Your task to perform on an android device: search for starred emails in the gmail app Image 0: 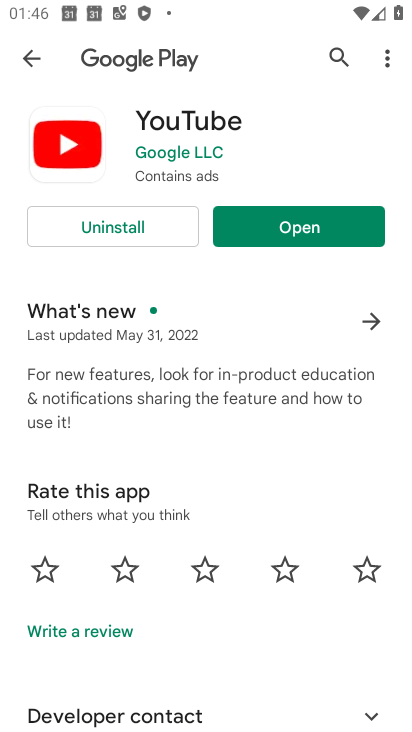
Step 0: press home button
Your task to perform on an android device: search for starred emails in the gmail app Image 1: 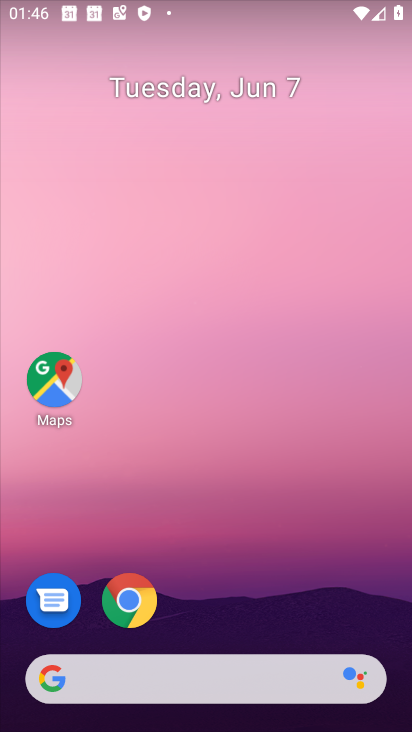
Step 1: drag from (208, 719) to (211, 145)
Your task to perform on an android device: search for starred emails in the gmail app Image 2: 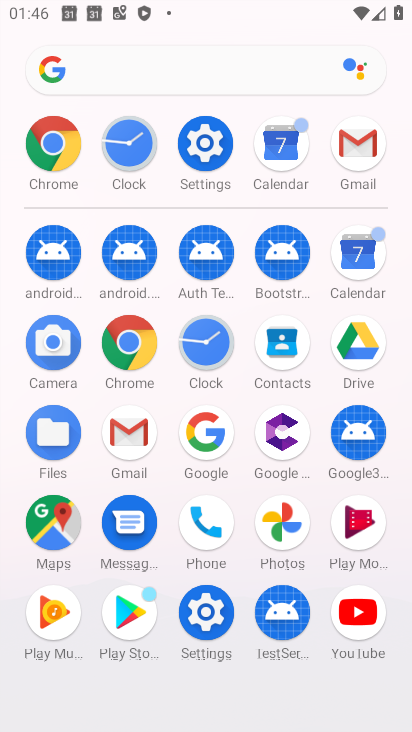
Step 2: click (130, 434)
Your task to perform on an android device: search for starred emails in the gmail app Image 3: 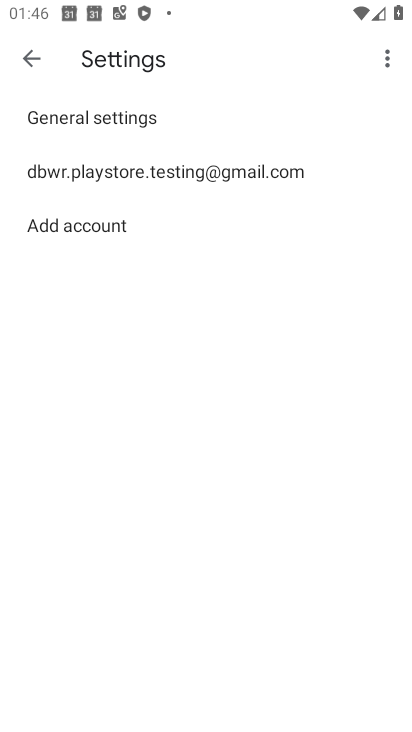
Step 3: click (29, 53)
Your task to perform on an android device: search for starred emails in the gmail app Image 4: 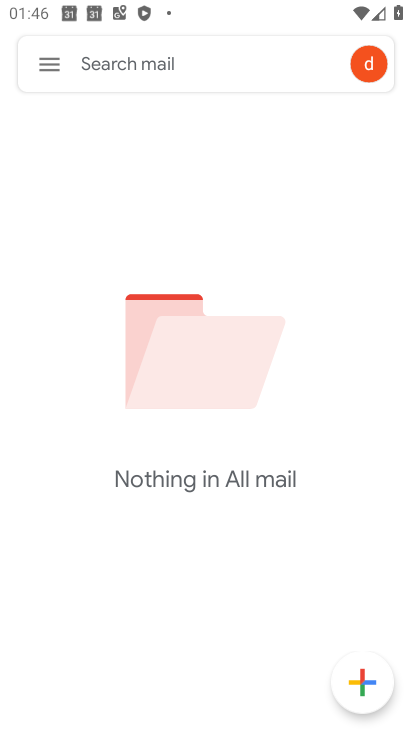
Step 4: click (43, 59)
Your task to perform on an android device: search for starred emails in the gmail app Image 5: 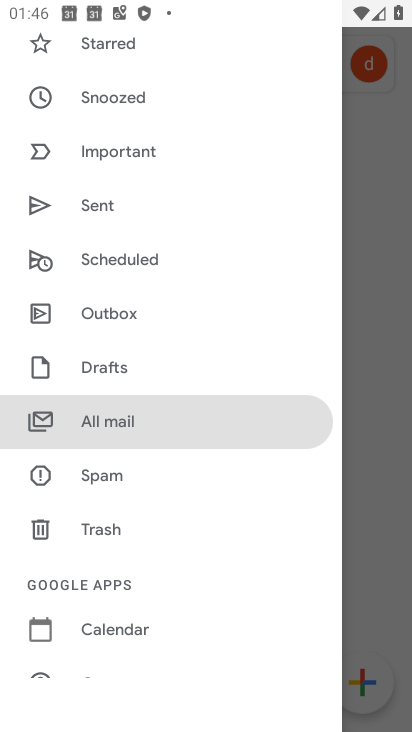
Step 5: click (93, 45)
Your task to perform on an android device: search for starred emails in the gmail app Image 6: 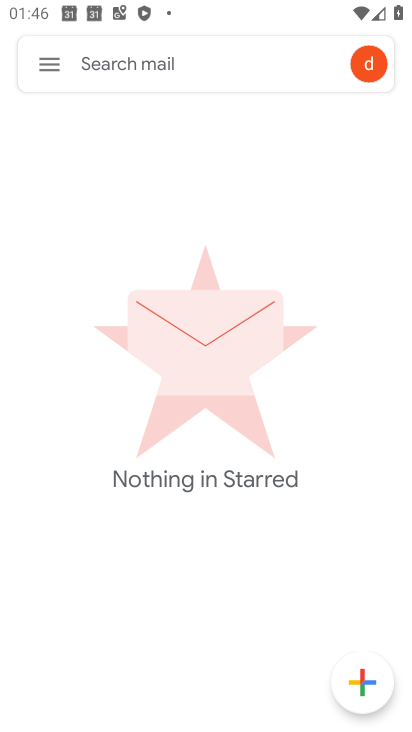
Step 6: task complete